Your task to perform on an android device: Go to Yahoo.com Image 0: 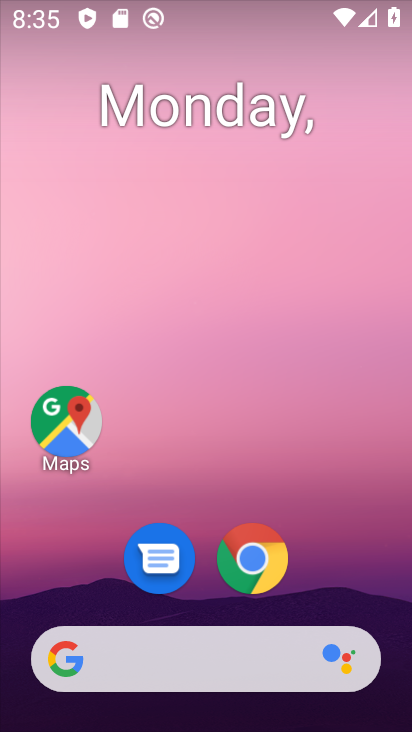
Step 0: click (247, 548)
Your task to perform on an android device: Go to Yahoo.com Image 1: 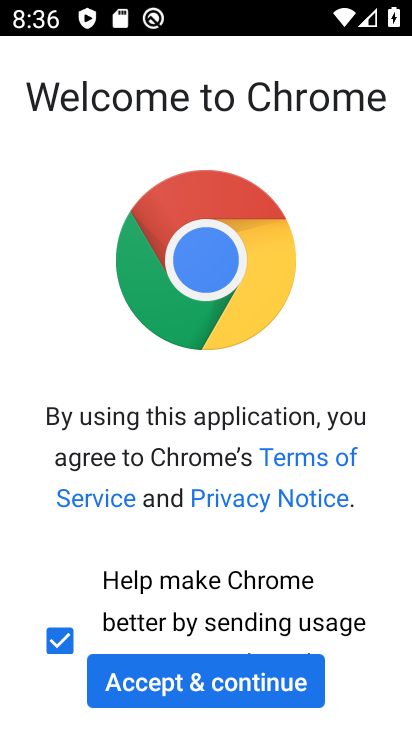
Step 1: click (209, 673)
Your task to perform on an android device: Go to Yahoo.com Image 2: 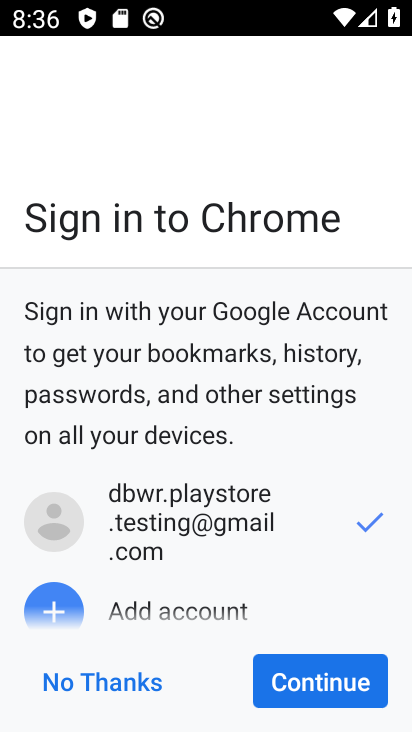
Step 2: click (305, 684)
Your task to perform on an android device: Go to Yahoo.com Image 3: 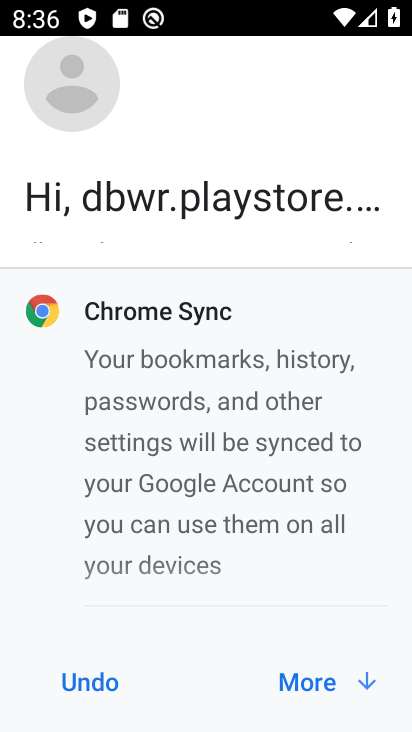
Step 3: click (305, 684)
Your task to perform on an android device: Go to Yahoo.com Image 4: 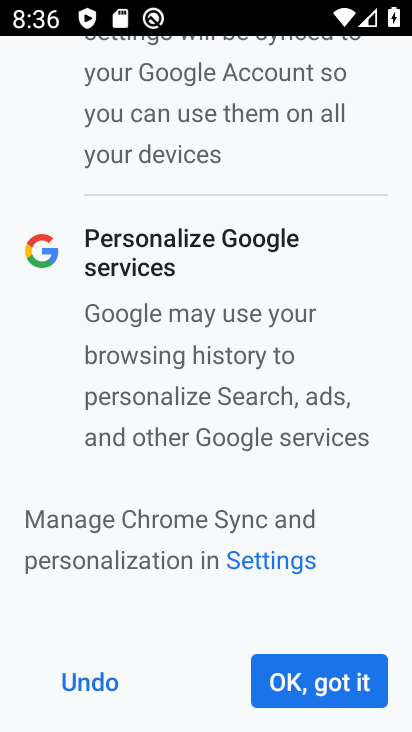
Step 4: click (305, 684)
Your task to perform on an android device: Go to Yahoo.com Image 5: 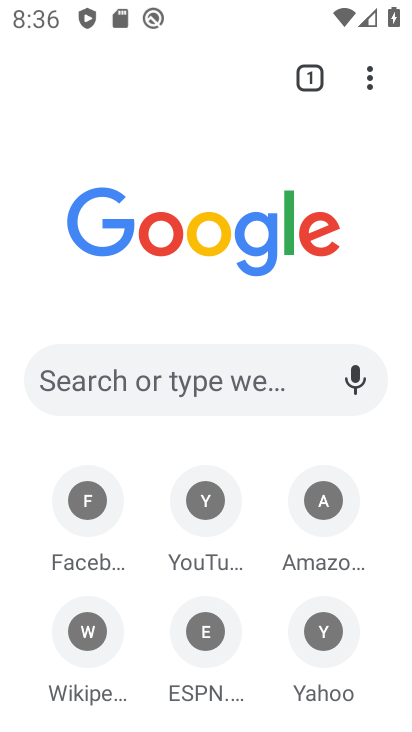
Step 5: click (195, 393)
Your task to perform on an android device: Go to Yahoo.com Image 6: 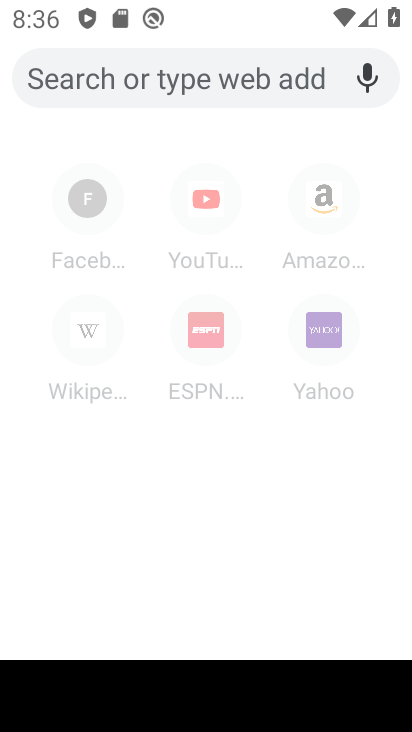
Step 6: type " Yahoo.com"
Your task to perform on an android device: Go to Yahoo.com Image 7: 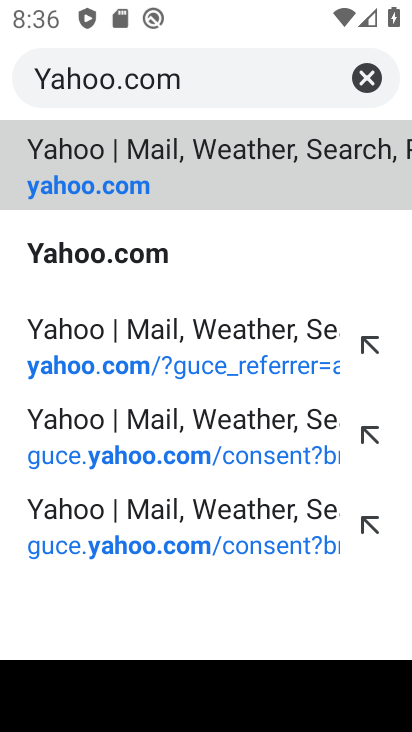
Step 7: click (127, 179)
Your task to perform on an android device: Go to Yahoo.com Image 8: 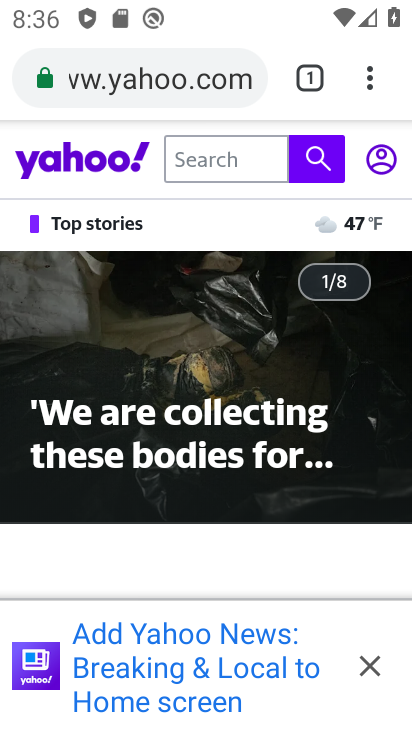
Step 8: task complete